Your task to perform on an android device: Open location settings Image 0: 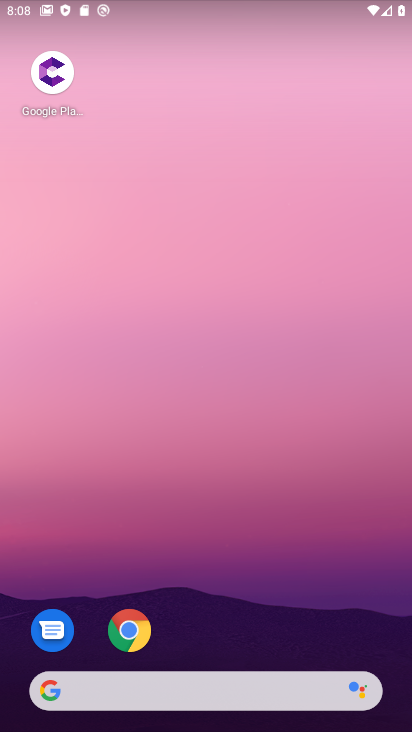
Step 0: drag from (223, 495) to (270, 80)
Your task to perform on an android device: Open location settings Image 1: 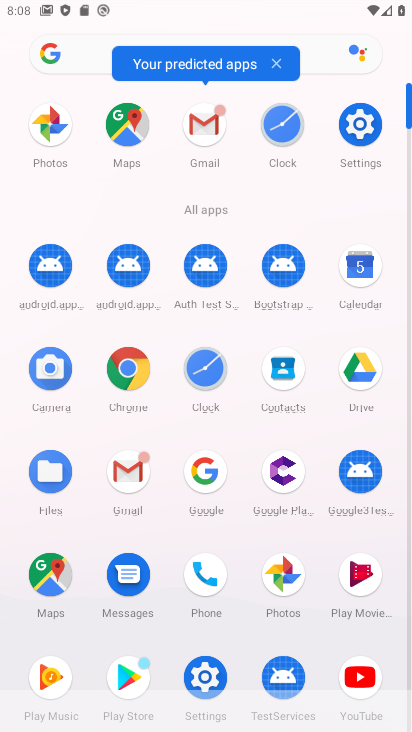
Step 1: click (374, 121)
Your task to perform on an android device: Open location settings Image 2: 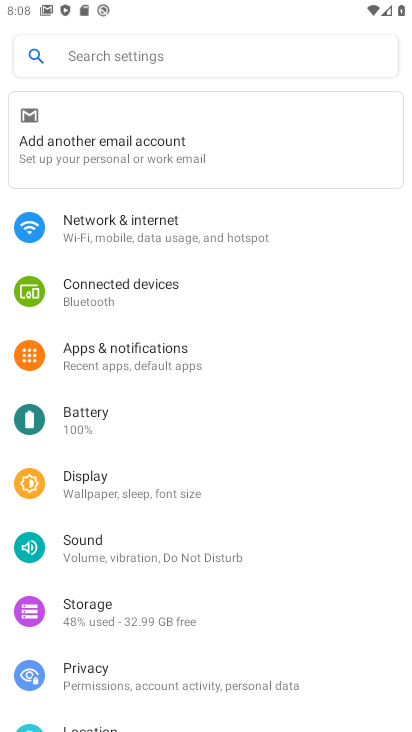
Step 2: drag from (151, 661) to (237, 203)
Your task to perform on an android device: Open location settings Image 3: 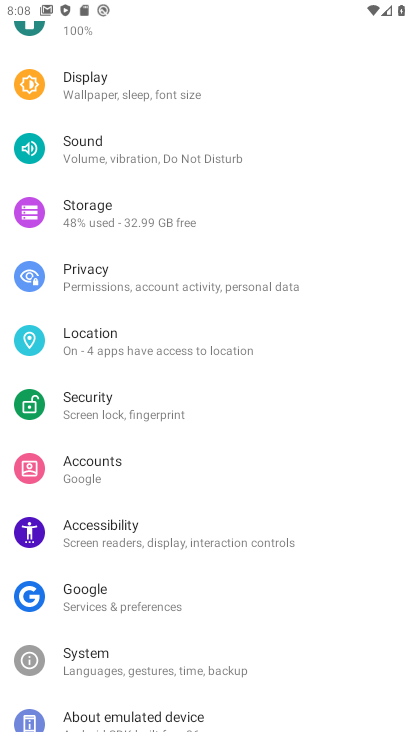
Step 3: click (81, 327)
Your task to perform on an android device: Open location settings Image 4: 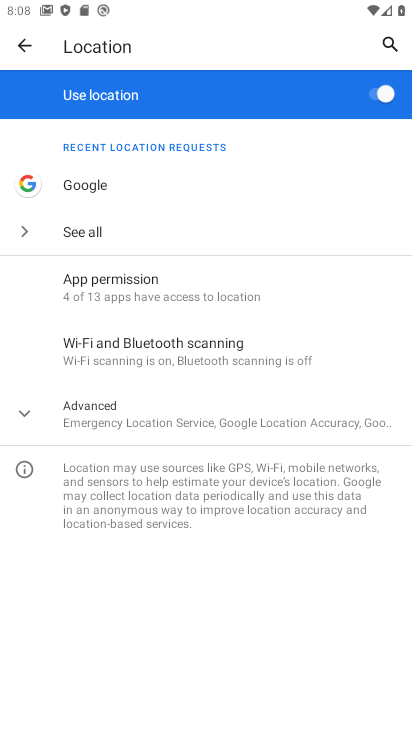
Step 4: task complete